Your task to perform on an android device: turn off javascript in the chrome app Image 0: 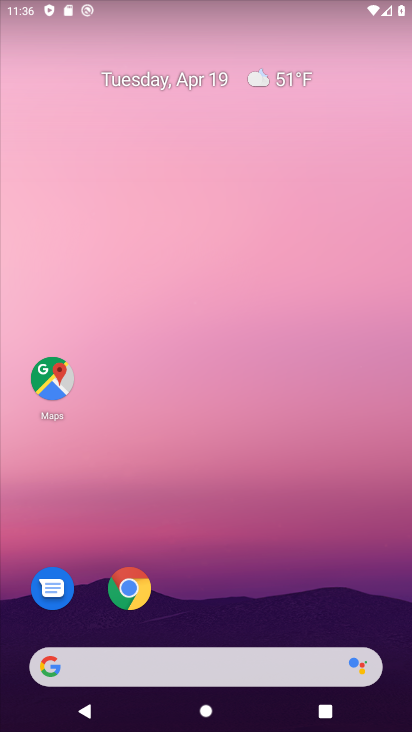
Step 0: click (233, 64)
Your task to perform on an android device: turn off javascript in the chrome app Image 1: 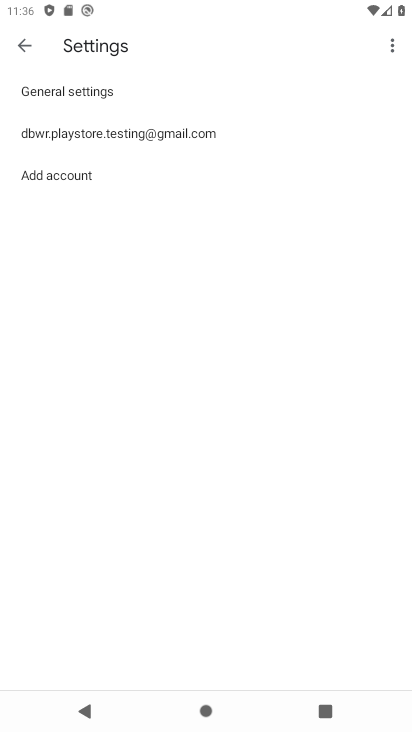
Step 1: press home button
Your task to perform on an android device: turn off javascript in the chrome app Image 2: 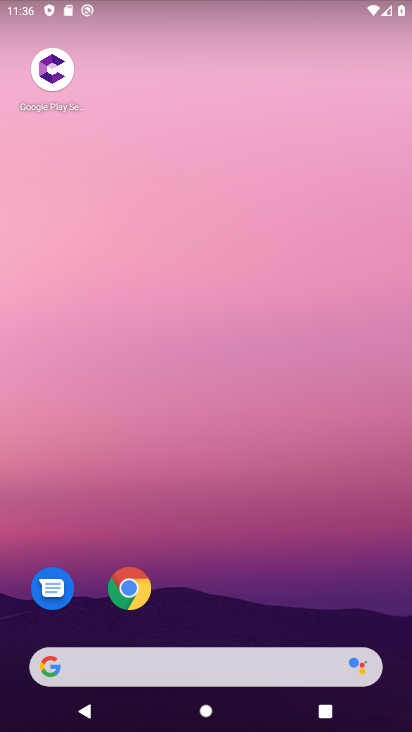
Step 2: drag from (243, 599) to (310, 76)
Your task to perform on an android device: turn off javascript in the chrome app Image 3: 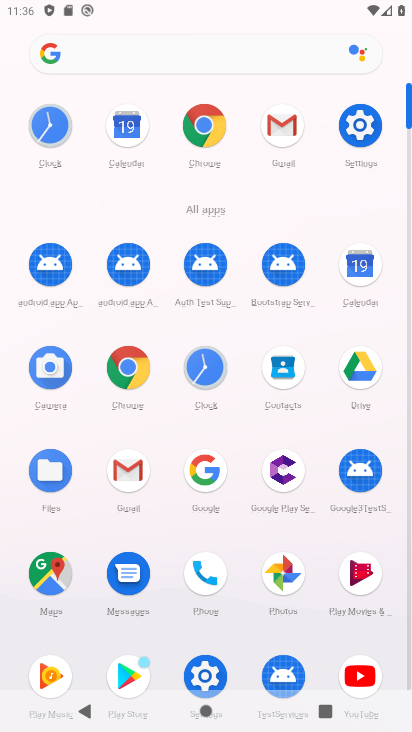
Step 3: click (121, 369)
Your task to perform on an android device: turn off javascript in the chrome app Image 4: 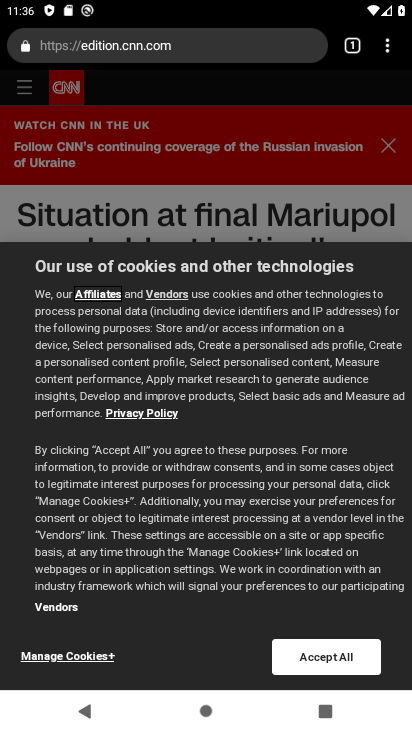
Step 4: click (389, 45)
Your task to perform on an android device: turn off javascript in the chrome app Image 5: 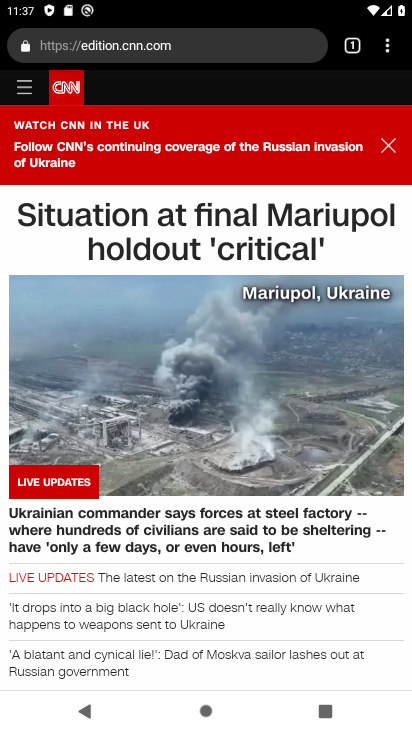
Step 5: click (387, 39)
Your task to perform on an android device: turn off javascript in the chrome app Image 6: 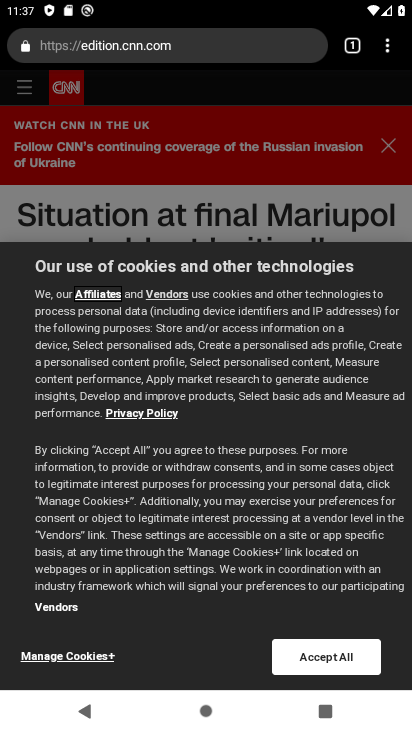
Step 6: click (392, 45)
Your task to perform on an android device: turn off javascript in the chrome app Image 7: 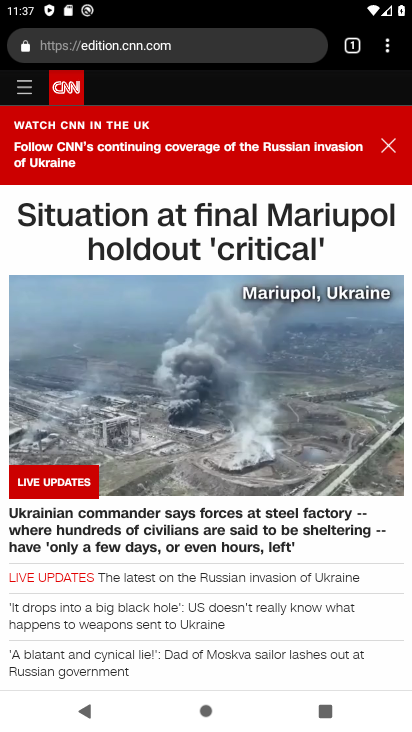
Step 7: click (390, 51)
Your task to perform on an android device: turn off javascript in the chrome app Image 8: 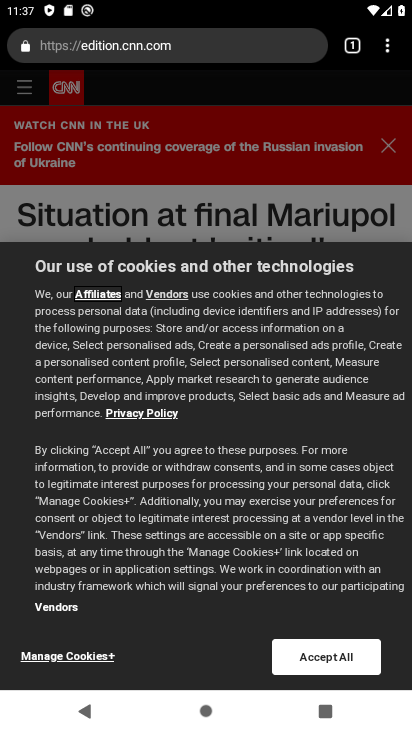
Step 8: click (387, 40)
Your task to perform on an android device: turn off javascript in the chrome app Image 9: 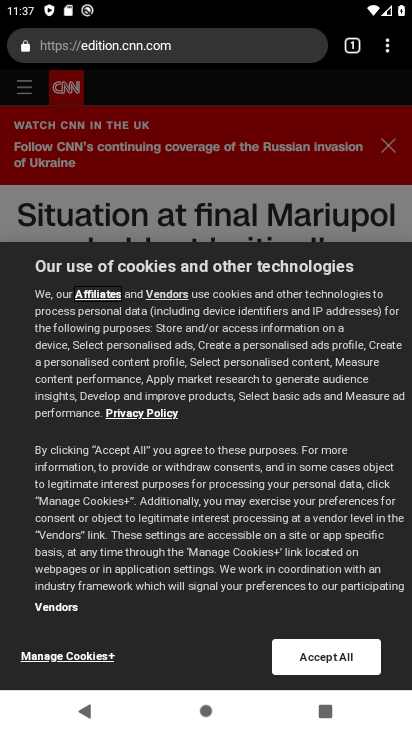
Step 9: click (386, 45)
Your task to perform on an android device: turn off javascript in the chrome app Image 10: 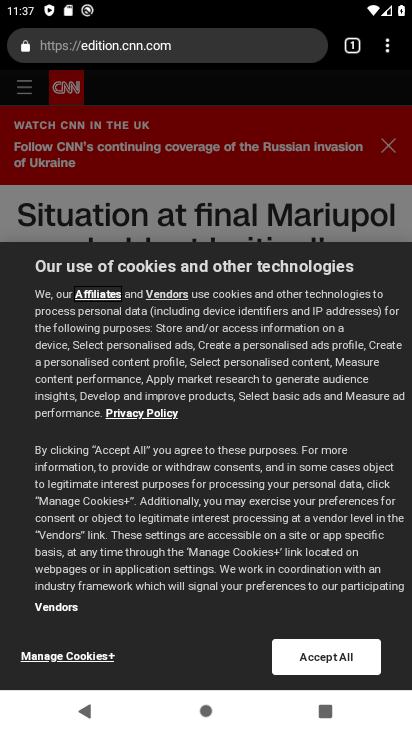
Step 10: click (384, 48)
Your task to perform on an android device: turn off javascript in the chrome app Image 11: 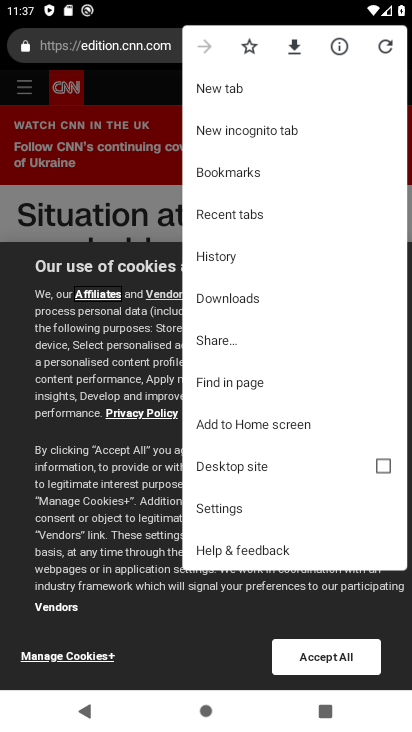
Step 11: click (257, 503)
Your task to perform on an android device: turn off javascript in the chrome app Image 12: 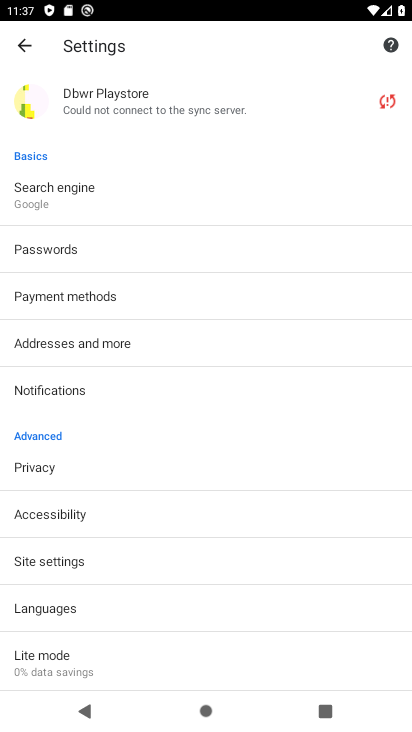
Step 12: click (109, 560)
Your task to perform on an android device: turn off javascript in the chrome app Image 13: 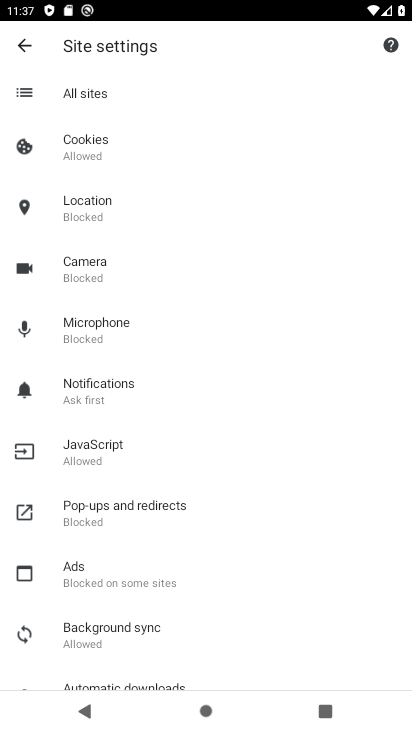
Step 13: click (129, 447)
Your task to perform on an android device: turn off javascript in the chrome app Image 14: 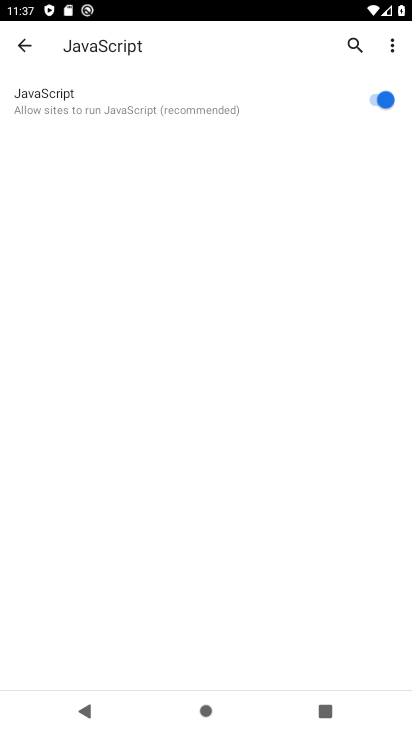
Step 14: click (377, 93)
Your task to perform on an android device: turn off javascript in the chrome app Image 15: 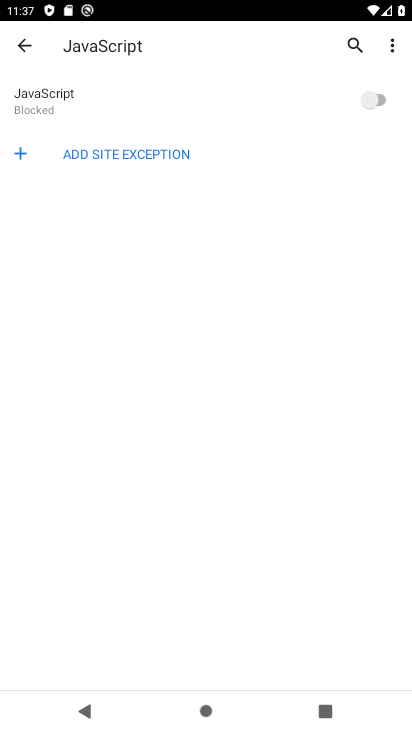
Step 15: task complete